Your task to perform on an android device: Search for duracell triple a on costco.com, select the first entry, add it to the cart, then select checkout. Image 0: 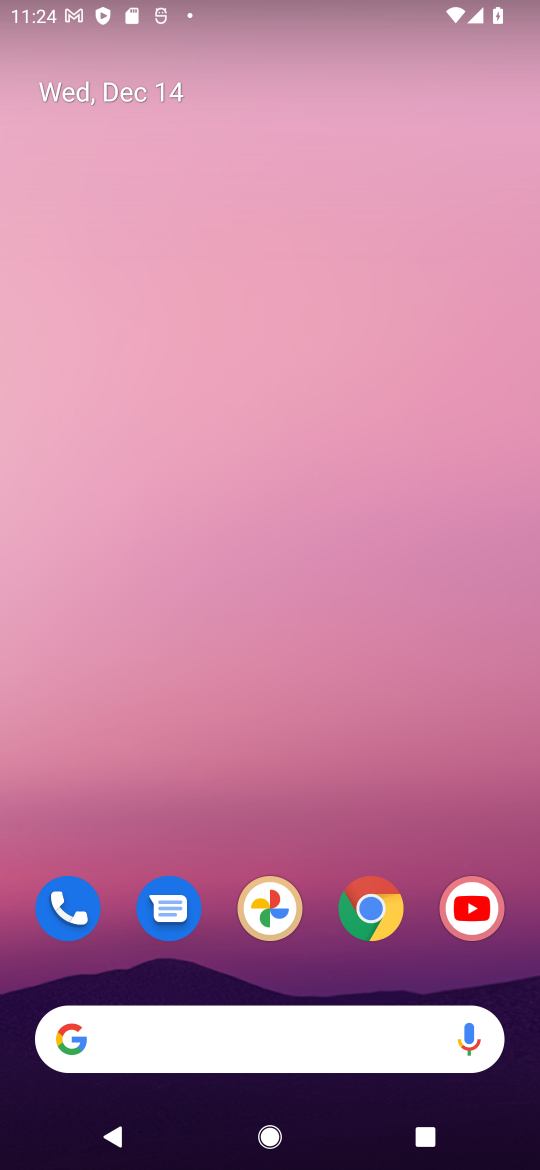
Step 0: click (380, 919)
Your task to perform on an android device: Search for duracell triple a on costco.com, select the first entry, add it to the cart, then select checkout. Image 1: 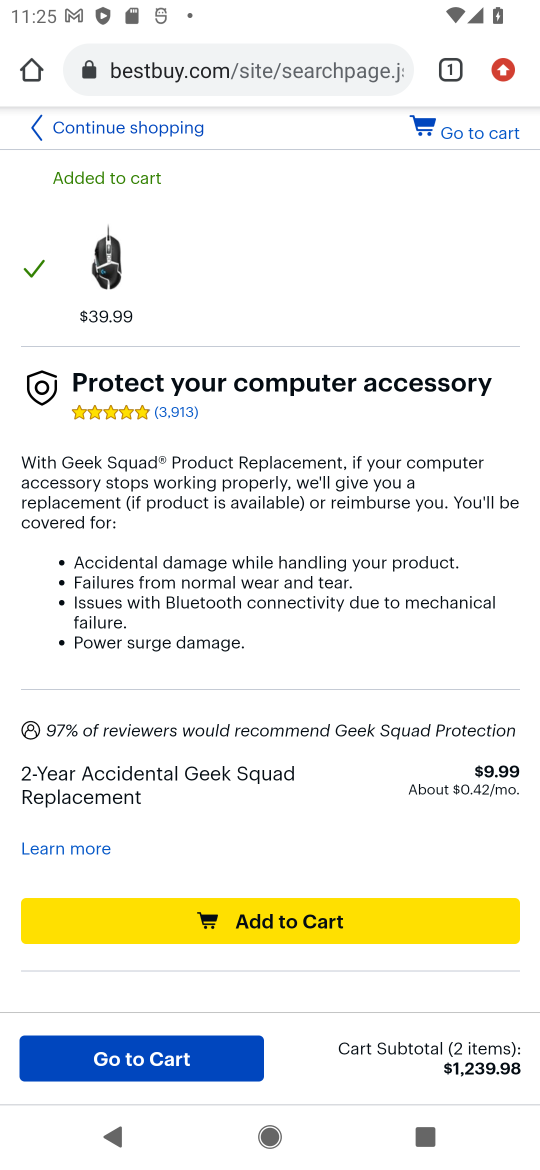
Step 1: click (198, 67)
Your task to perform on an android device: Search for duracell triple a on costco.com, select the first entry, add it to the cart, then select checkout. Image 2: 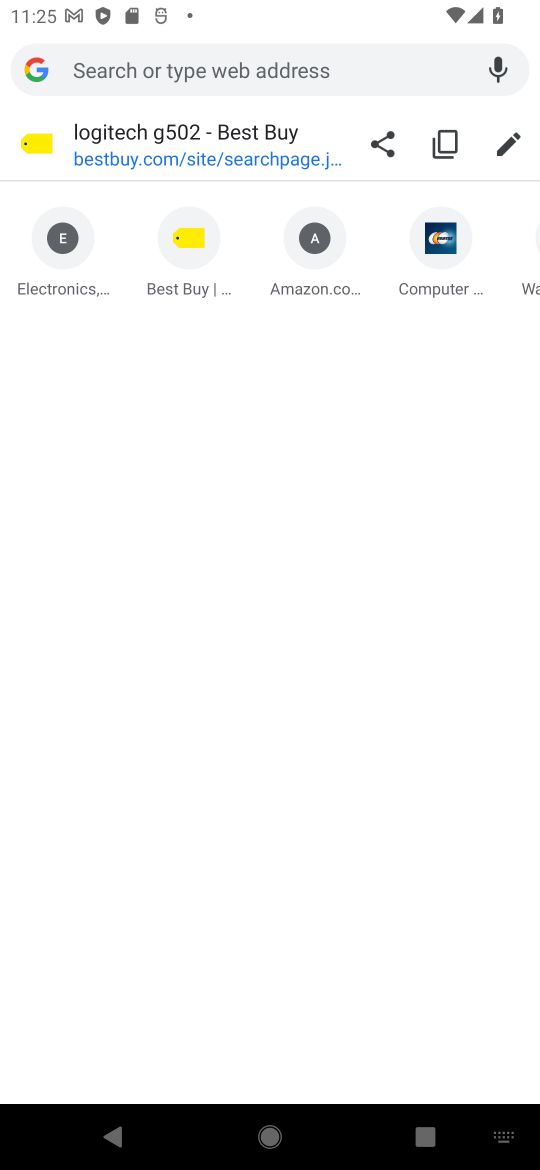
Step 2: type "costco.com"
Your task to perform on an android device: Search for duracell triple a on costco.com, select the first entry, add it to the cart, then select checkout. Image 3: 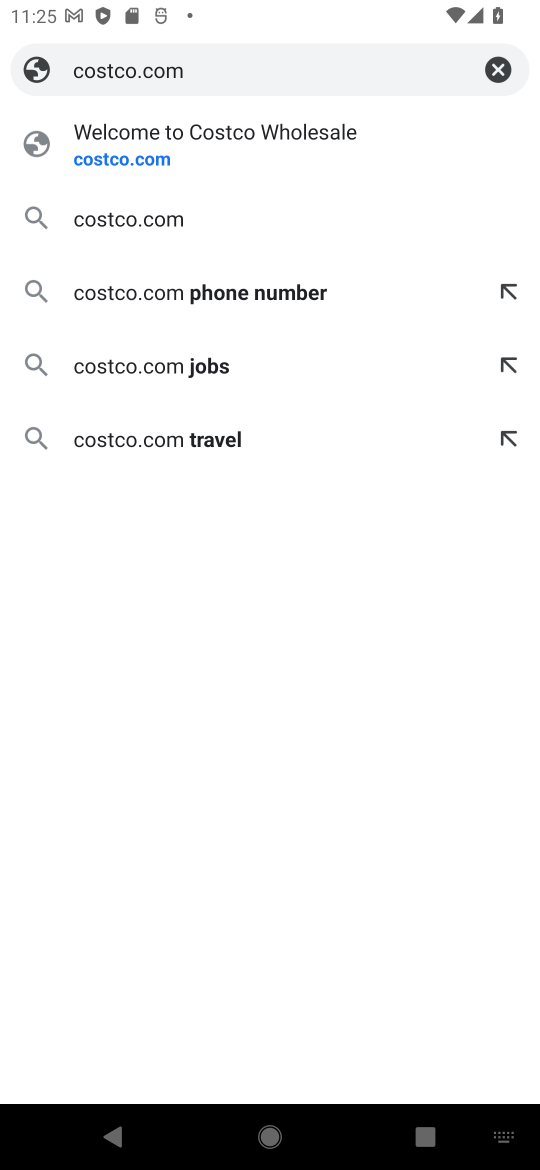
Step 3: click (112, 143)
Your task to perform on an android device: Search for duracell triple a on costco.com, select the first entry, add it to the cart, then select checkout. Image 4: 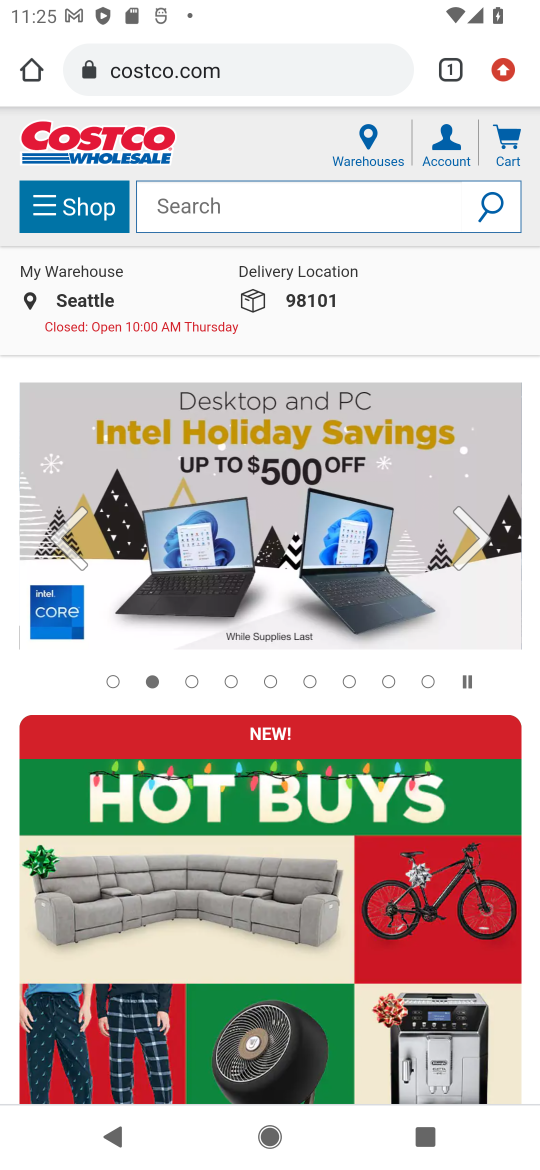
Step 4: click (230, 214)
Your task to perform on an android device: Search for duracell triple a on costco.com, select the first entry, add it to the cart, then select checkout. Image 5: 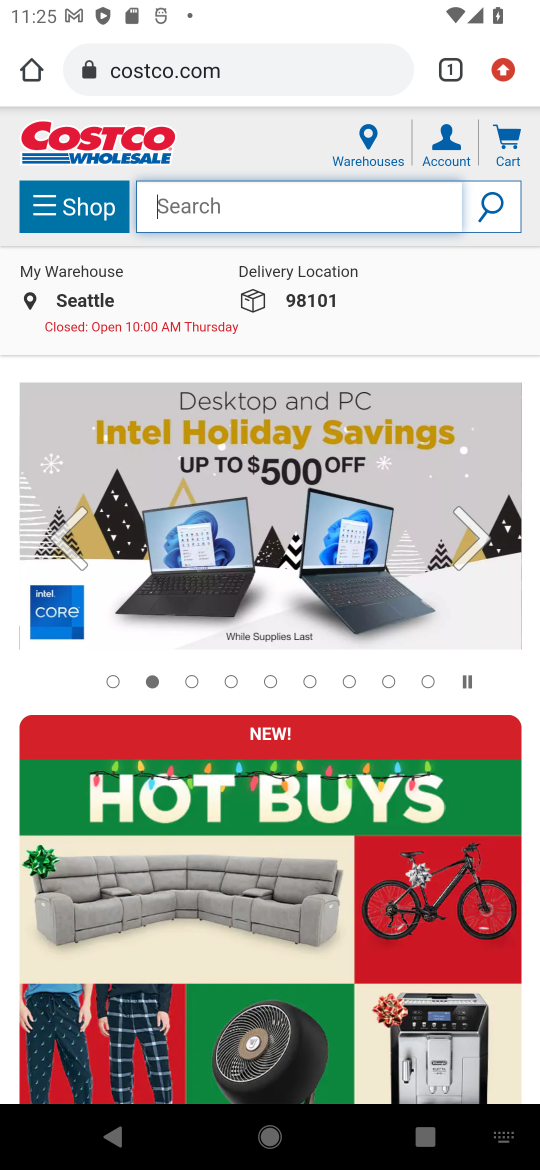
Step 5: type "duracell triple a"
Your task to perform on an android device: Search for duracell triple a on costco.com, select the first entry, add it to the cart, then select checkout. Image 6: 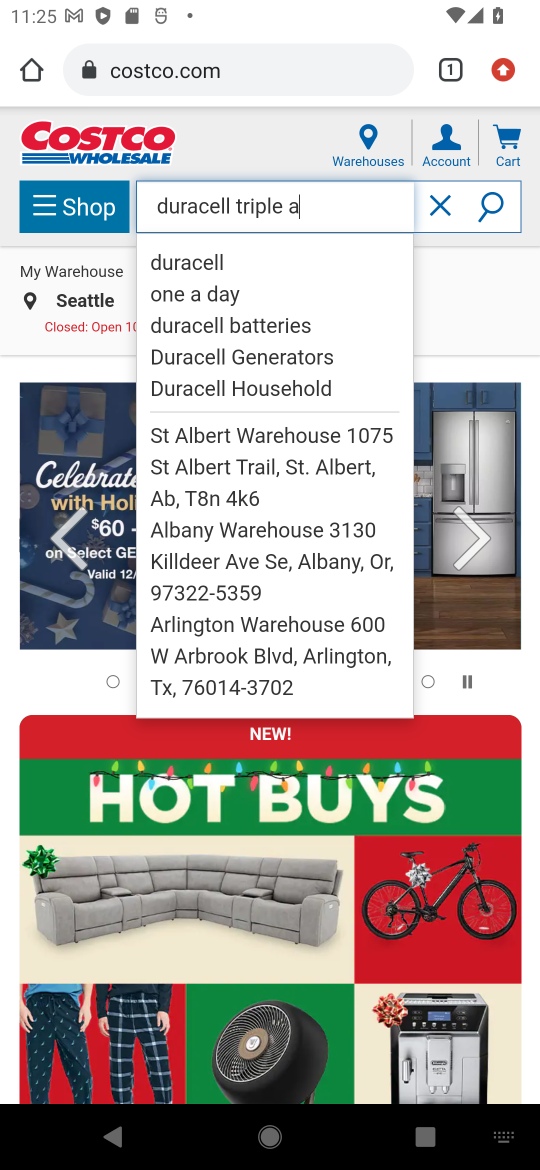
Step 6: click (481, 208)
Your task to perform on an android device: Search for duracell triple a on costco.com, select the first entry, add it to the cart, then select checkout. Image 7: 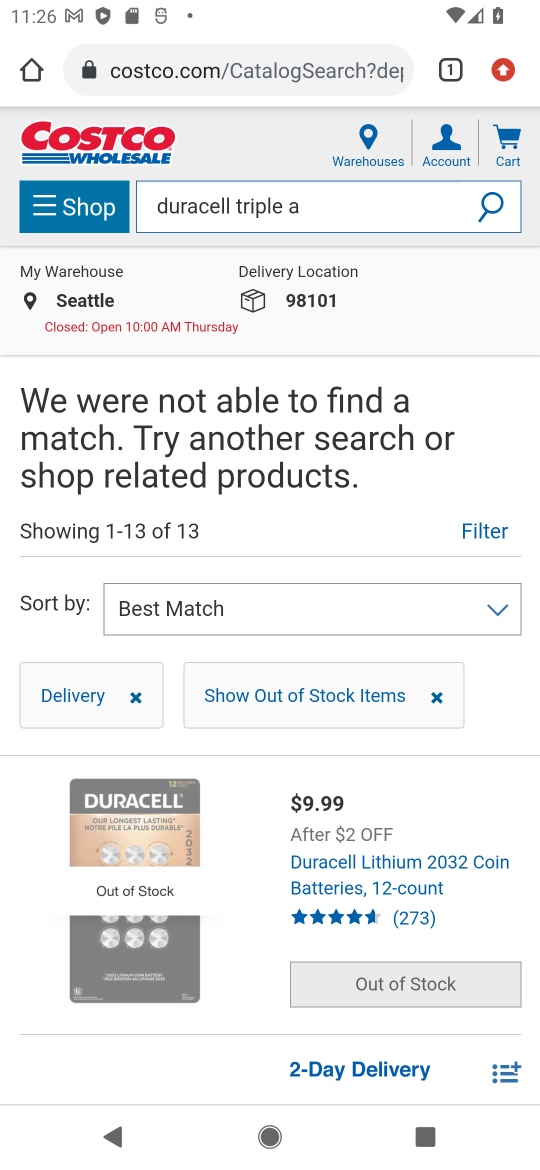
Step 7: task complete